Your task to perform on an android device: Show me productivity apps on the Play Store Image 0: 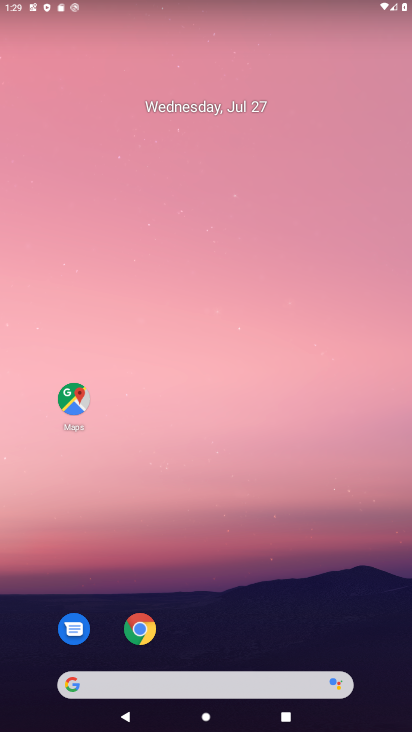
Step 0: drag from (244, 626) to (210, 210)
Your task to perform on an android device: Show me productivity apps on the Play Store Image 1: 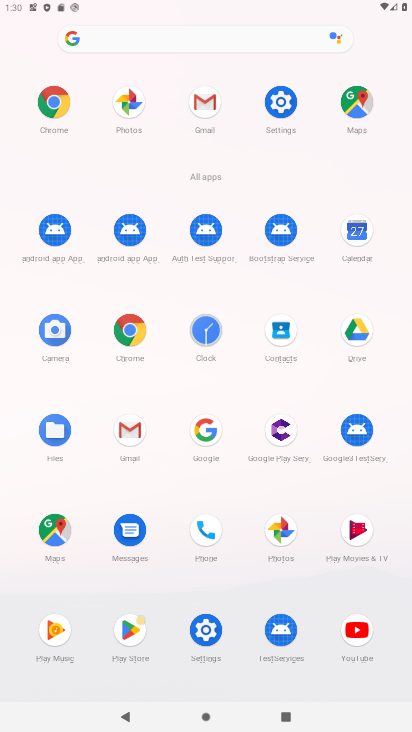
Step 1: click (130, 628)
Your task to perform on an android device: Show me productivity apps on the Play Store Image 2: 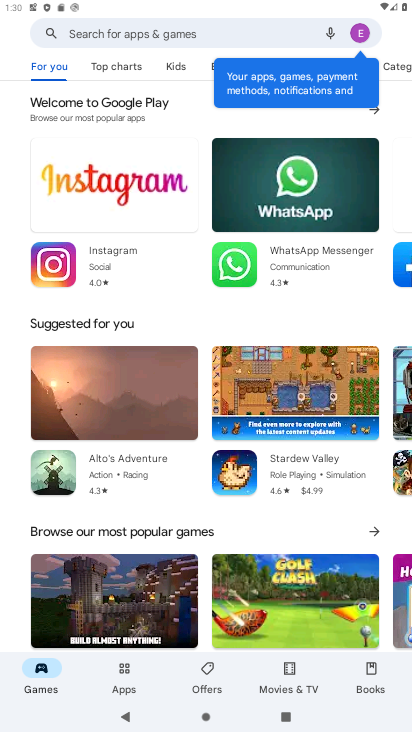
Step 2: click (121, 678)
Your task to perform on an android device: Show me productivity apps on the Play Store Image 3: 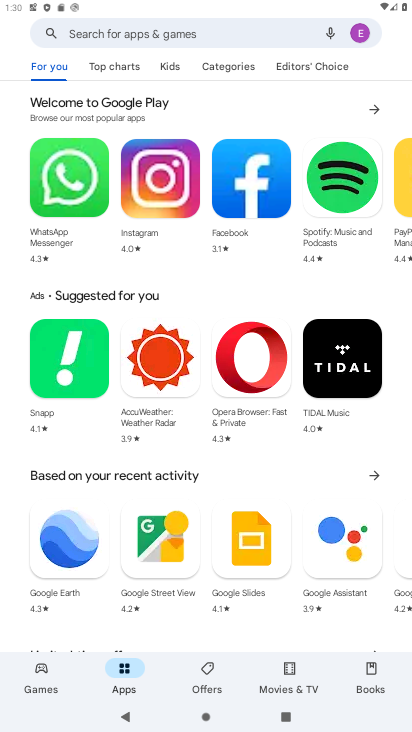
Step 3: click (230, 71)
Your task to perform on an android device: Show me productivity apps on the Play Store Image 4: 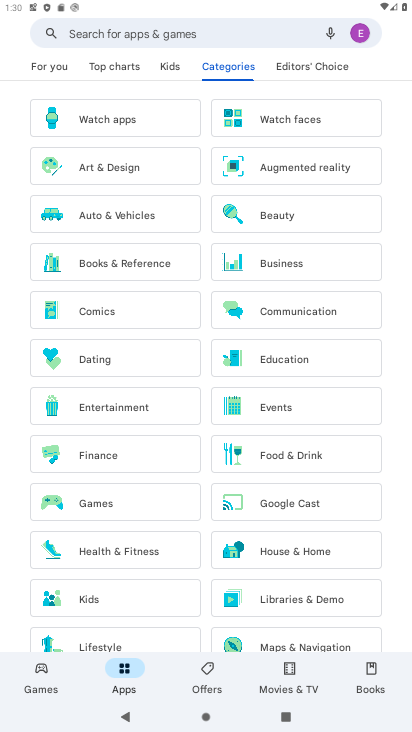
Step 4: drag from (208, 620) to (173, 296)
Your task to perform on an android device: Show me productivity apps on the Play Store Image 5: 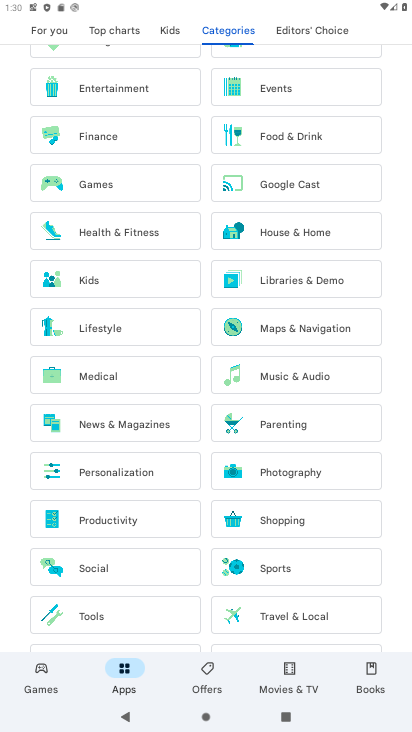
Step 5: click (164, 522)
Your task to perform on an android device: Show me productivity apps on the Play Store Image 6: 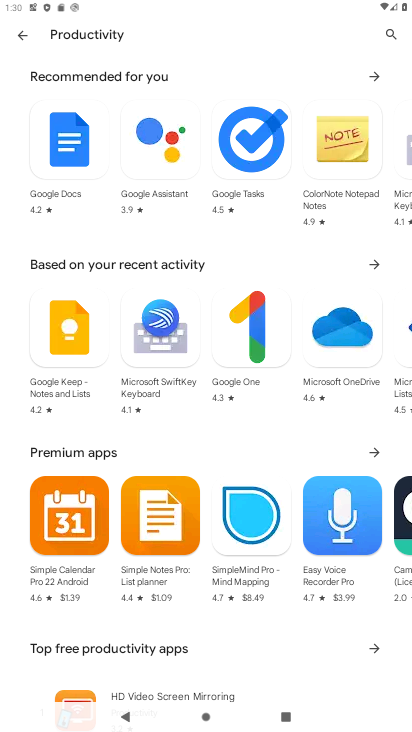
Step 6: task complete